Your task to perform on an android device: Open Yahoo.com Image 0: 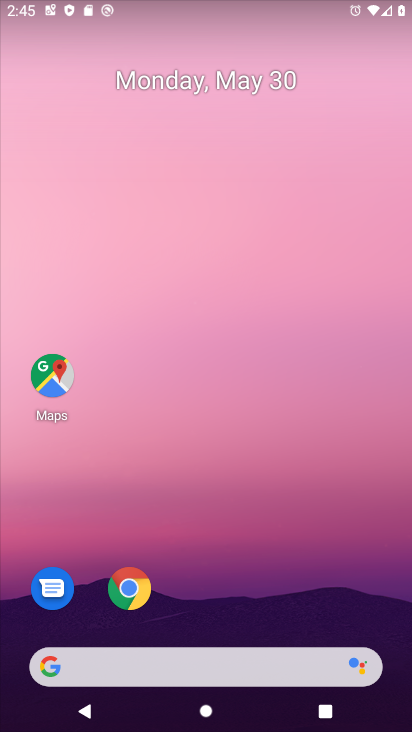
Step 0: click (142, 586)
Your task to perform on an android device: Open Yahoo.com Image 1: 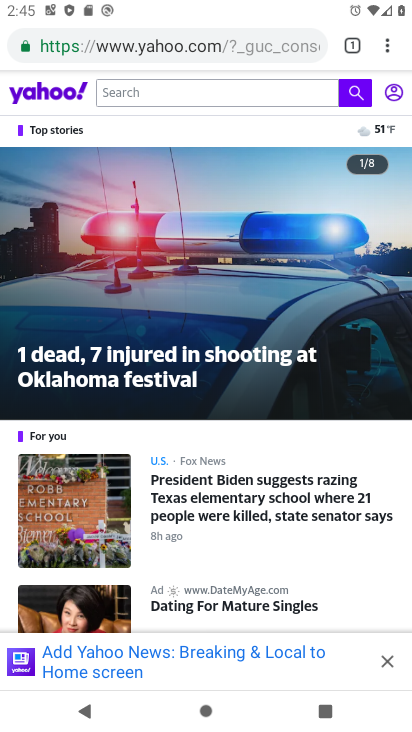
Step 1: task complete